Your task to perform on an android device: make emails show in primary in the gmail app Image 0: 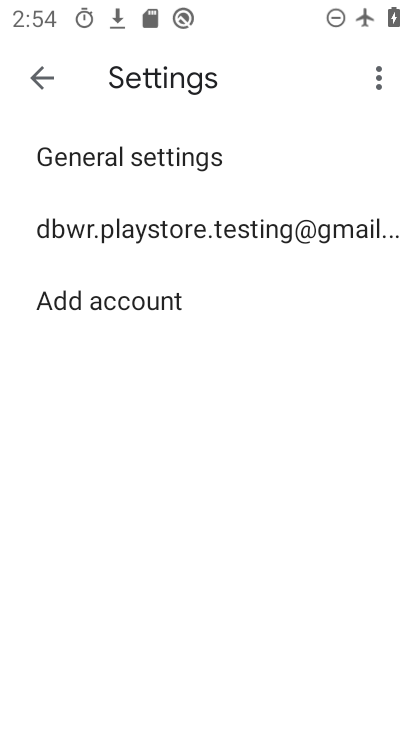
Step 0: drag from (168, 499) to (210, 126)
Your task to perform on an android device: make emails show in primary in the gmail app Image 1: 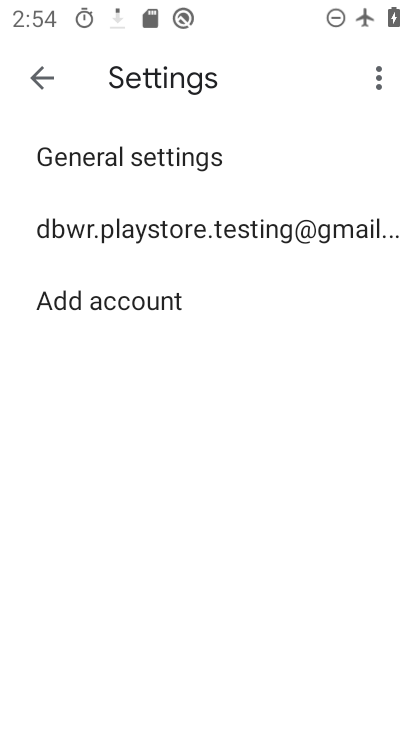
Step 1: click (117, 220)
Your task to perform on an android device: make emails show in primary in the gmail app Image 2: 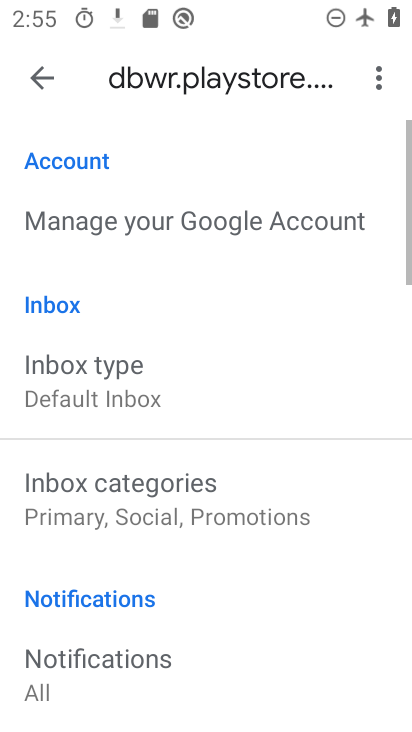
Step 2: drag from (239, 596) to (281, 189)
Your task to perform on an android device: make emails show in primary in the gmail app Image 3: 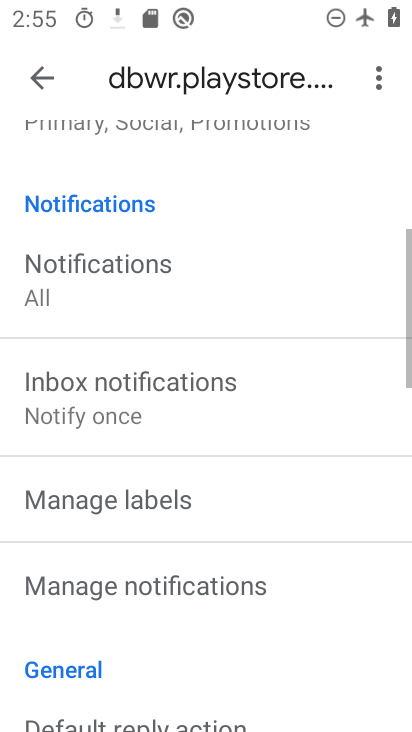
Step 3: drag from (218, 628) to (250, 300)
Your task to perform on an android device: make emails show in primary in the gmail app Image 4: 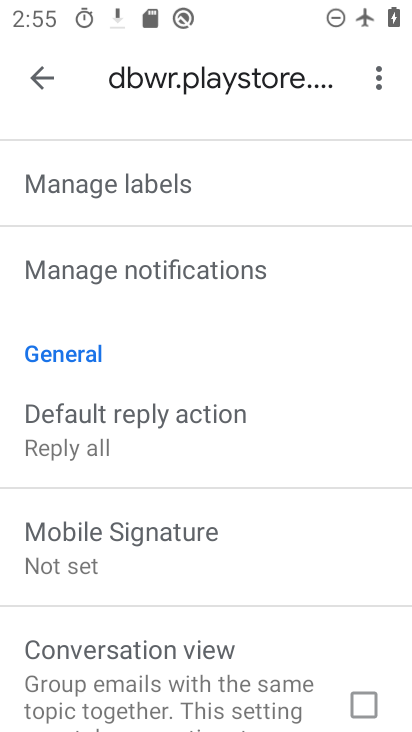
Step 4: drag from (157, 651) to (244, 375)
Your task to perform on an android device: make emails show in primary in the gmail app Image 5: 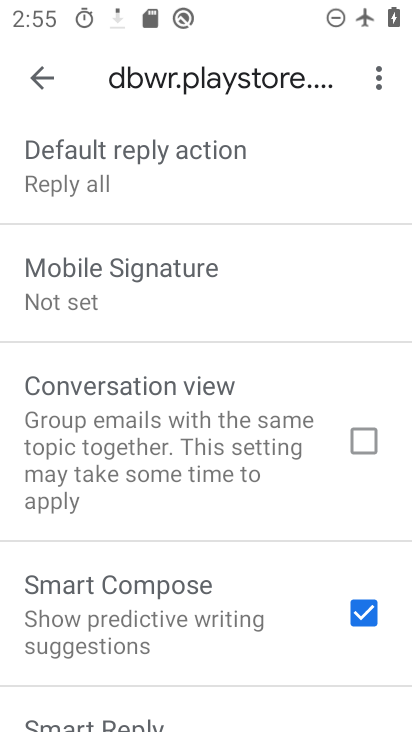
Step 5: click (35, 59)
Your task to perform on an android device: make emails show in primary in the gmail app Image 6: 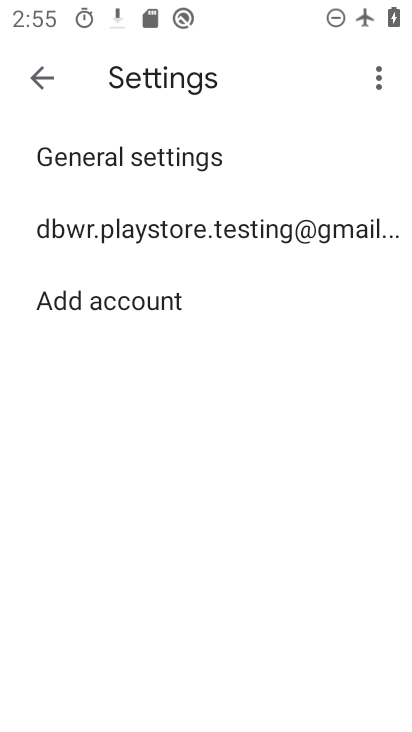
Step 6: click (50, 82)
Your task to perform on an android device: make emails show in primary in the gmail app Image 7: 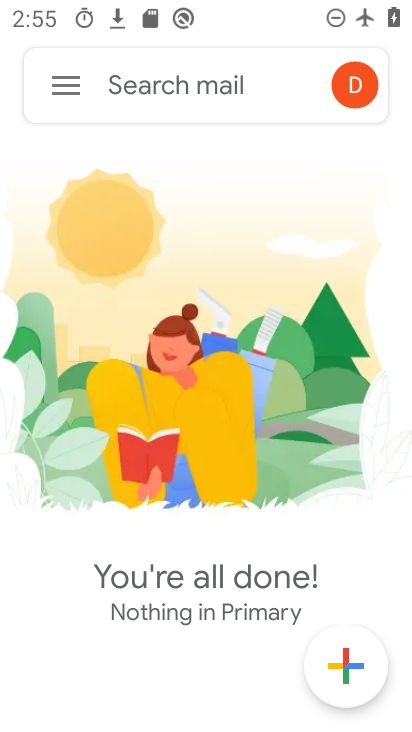
Step 7: click (50, 82)
Your task to perform on an android device: make emails show in primary in the gmail app Image 8: 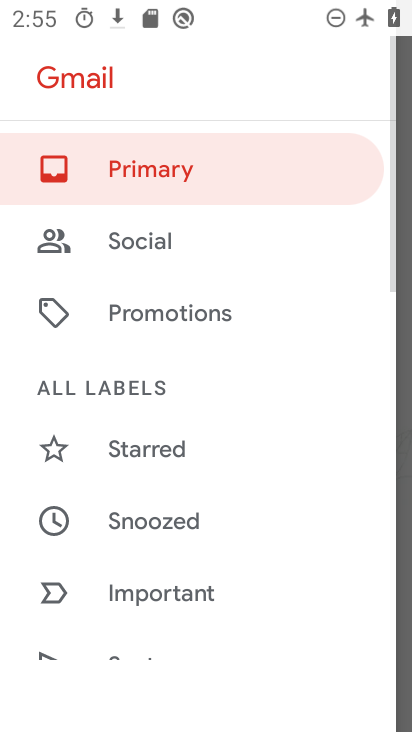
Step 8: drag from (170, 595) to (234, 93)
Your task to perform on an android device: make emails show in primary in the gmail app Image 9: 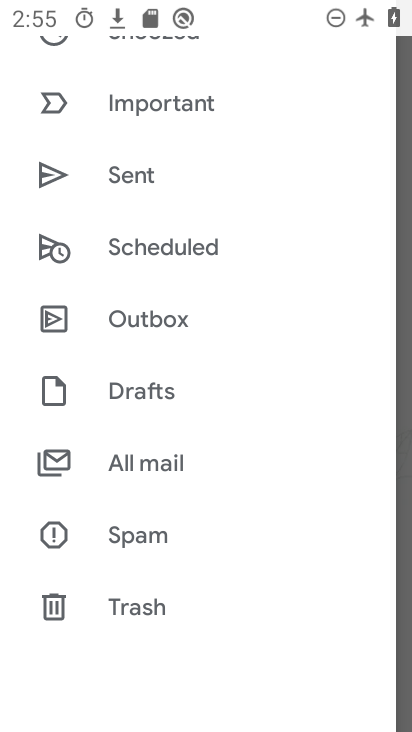
Step 9: drag from (195, 513) to (269, 76)
Your task to perform on an android device: make emails show in primary in the gmail app Image 10: 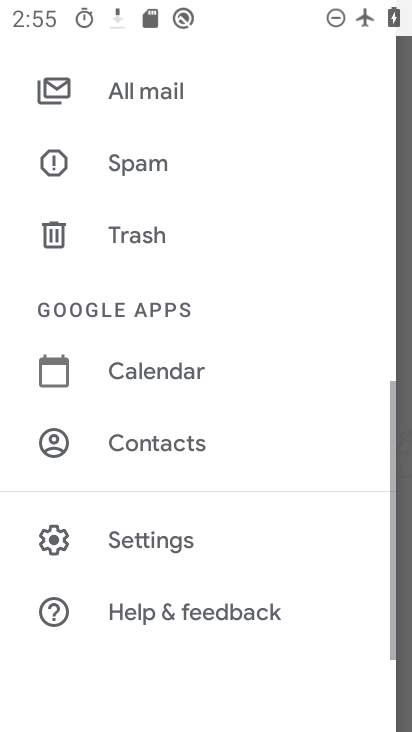
Step 10: click (179, 541)
Your task to perform on an android device: make emails show in primary in the gmail app Image 11: 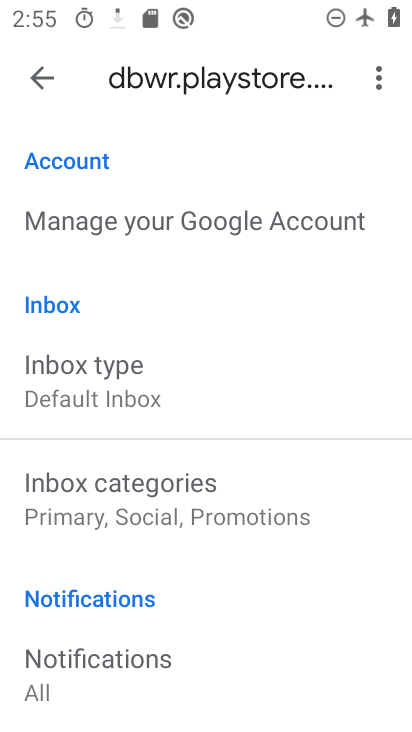
Step 11: click (38, 67)
Your task to perform on an android device: make emails show in primary in the gmail app Image 12: 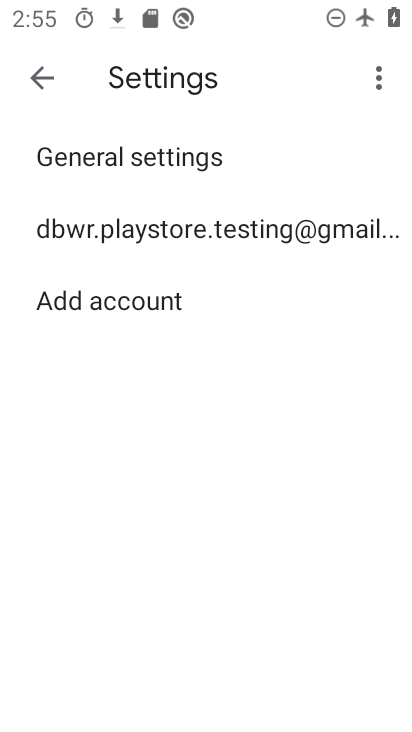
Step 12: click (28, 64)
Your task to perform on an android device: make emails show in primary in the gmail app Image 13: 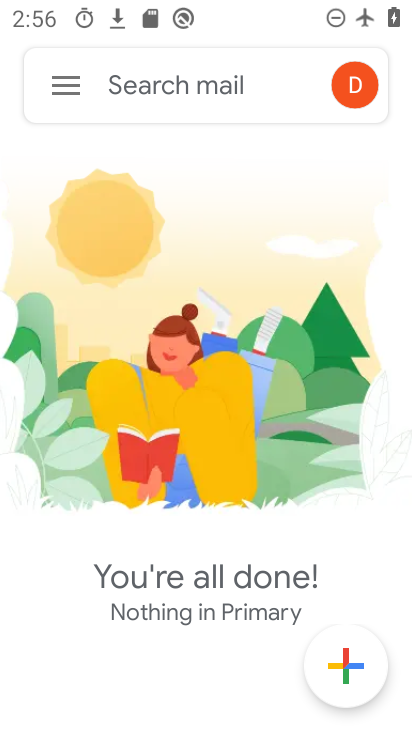
Step 13: click (66, 88)
Your task to perform on an android device: make emails show in primary in the gmail app Image 14: 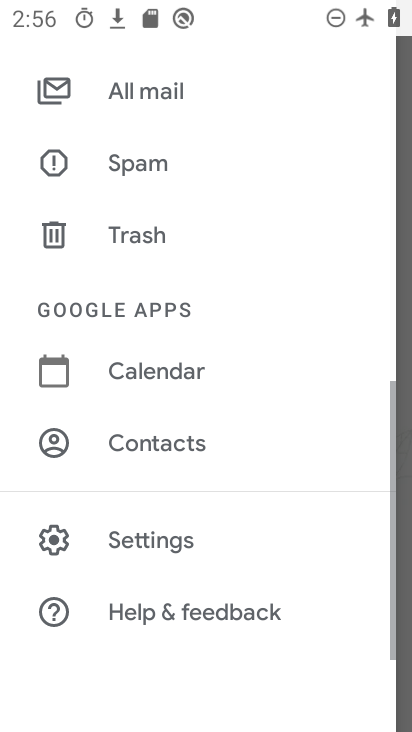
Step 14: drag from (59, 193) to (207, 729)
Your task to perform on an android device: make emails show in primary in the gmail app Image 15: 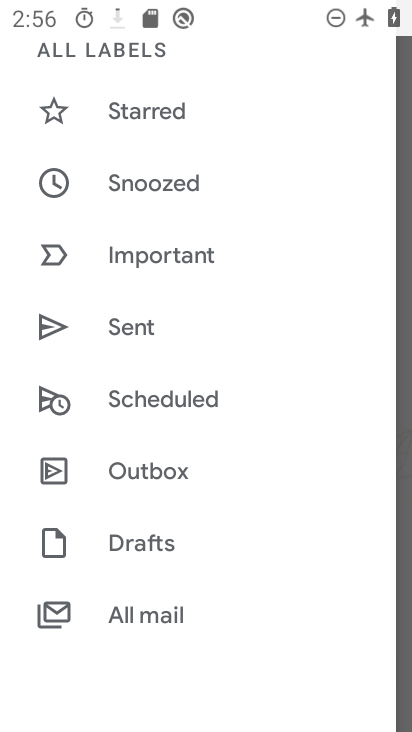
Step 15: drag from (121, 239) to (228, 650)
Your task to perform on an android device: make emails show in primary in the gmail app Image 16: 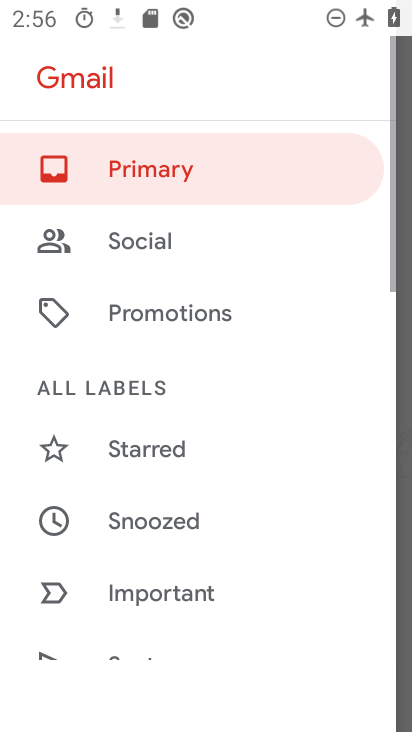
Step 16: click (138, 161)
Your task to perform on an android device: make emails show in primary in the gmail app Image 17: 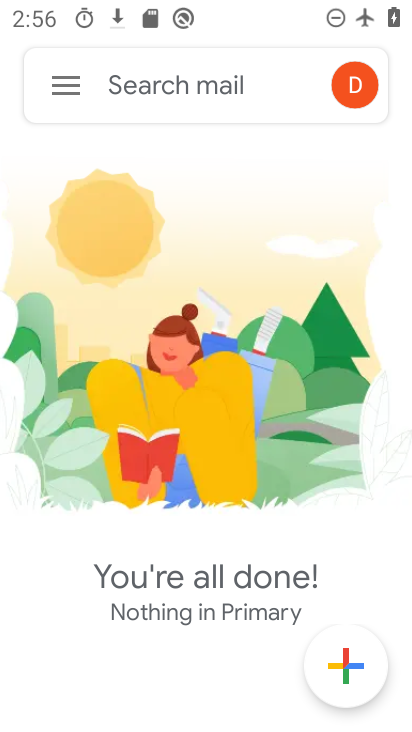
Step 17: task complete